Your task to perform on an android device: set an alarm Image 0: 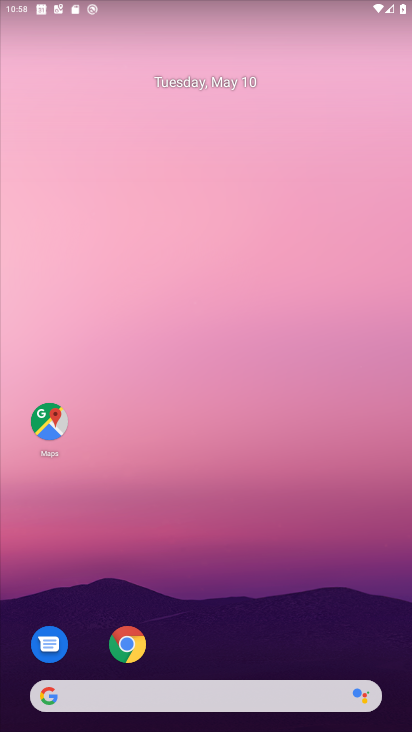
Step 0: drag from (249, 683) to (311, 147)
Your task to perform on an android device: set an alarm Image 1: 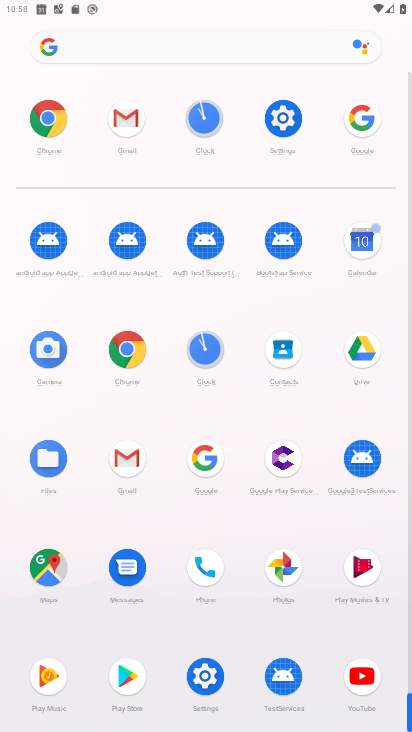
Step 1: click (199, 126)
Your task to perform on an android device: set an alarm Image 2: 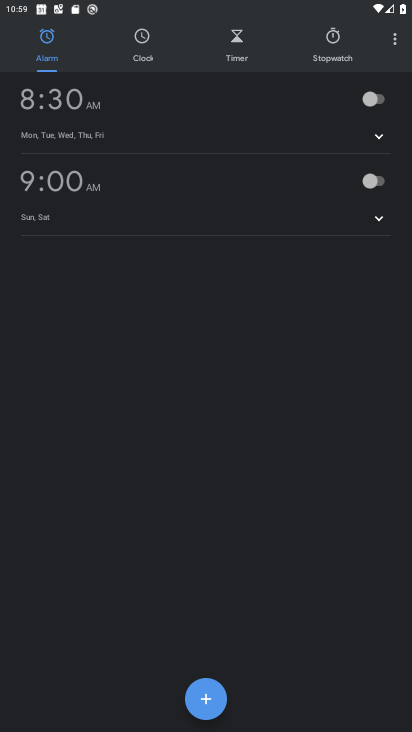
Step 2: click (210, 714)
Your task to perform on an android device: set an alarm Image 3: 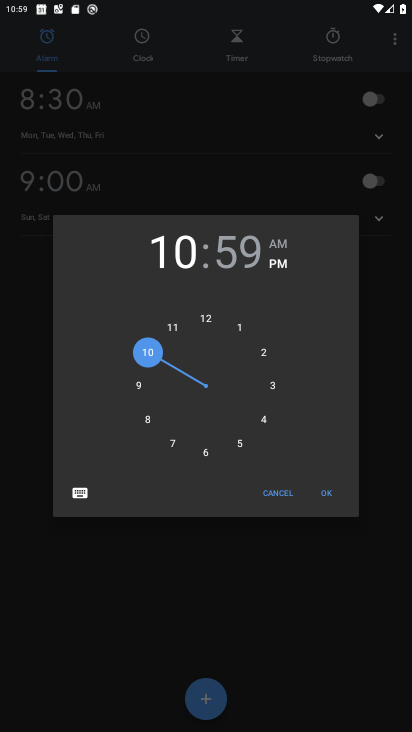
Step 3: click (329, 493)
Your task to perform on an android device: set an alarm Image 4: 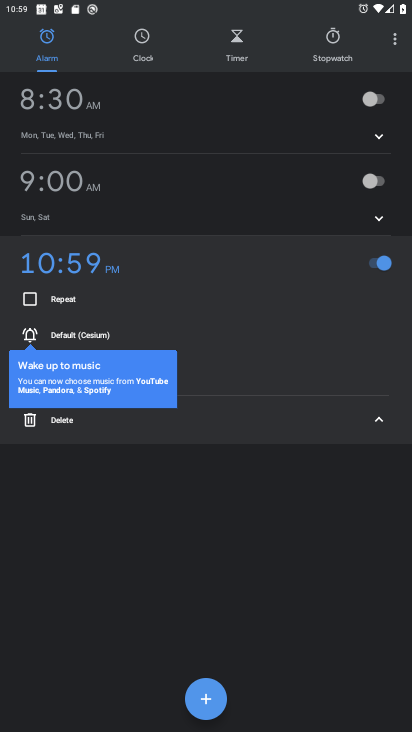
Step 4: task complete